Your task to perform on an android device: Open ESPN.com Image 0: 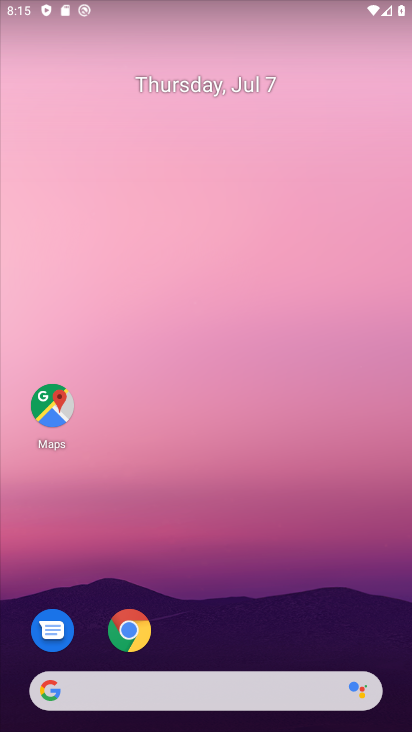
Step 0: click (130, 632)
Your task to perform on an android device: Open ESPN.com Image 1: 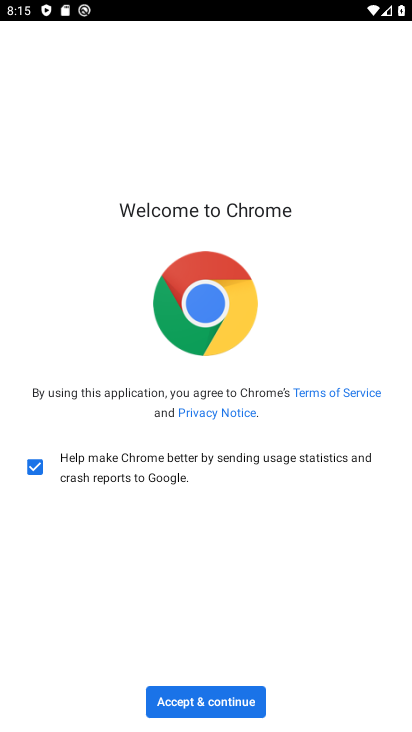
Step 1: click (218, 709)
Your task to perform on an android device: Open ESPN.com Image 2: 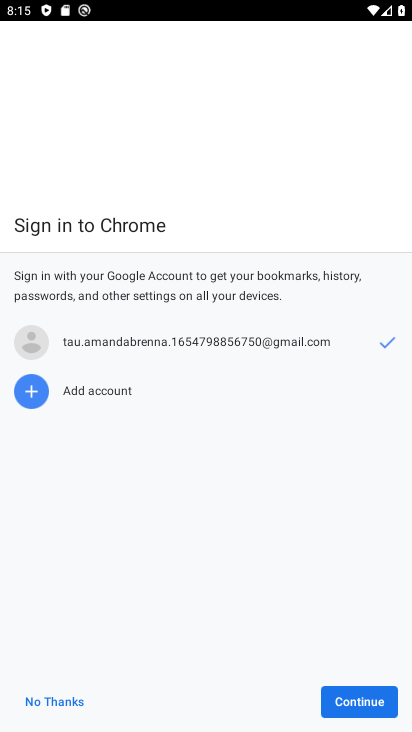
Step 2: click (354, 689)
Your task to perform on an android device: Open ESPN.com Image 3: 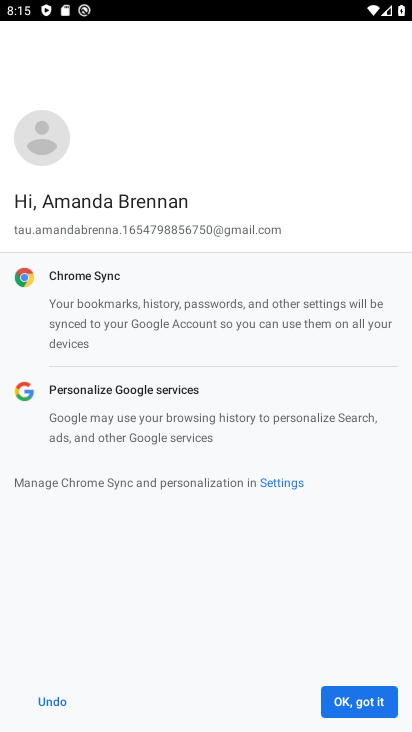
Step 3: click (352, 690)
Your task to perform on an android device: Open ESPN.com Image 4: 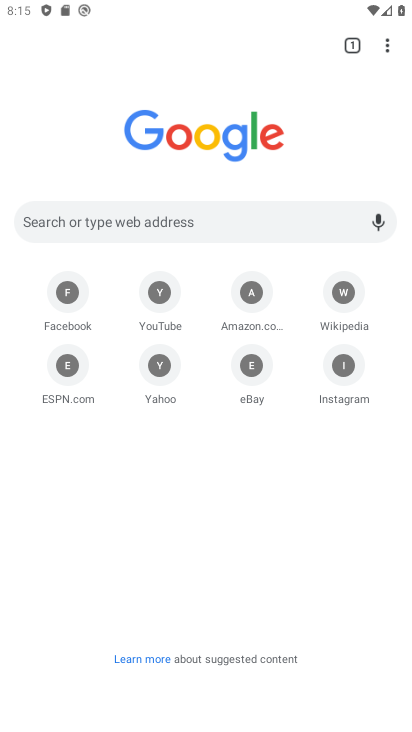
Step 4: click (180, 43)
Your task to perform on an android device: Open ESPN.com Image 5: 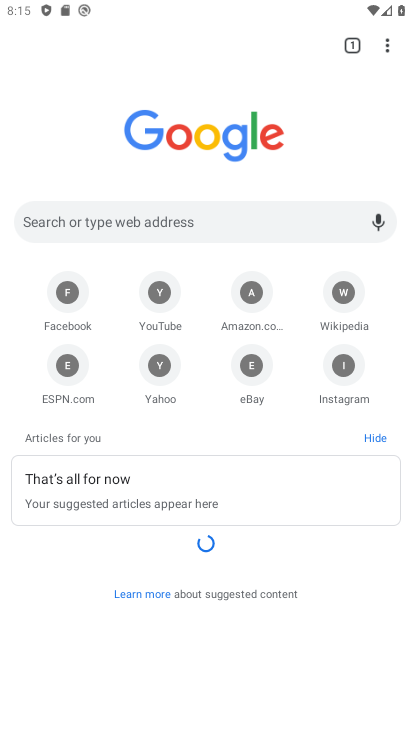
Step 5: click (57, 366)
Your task to perform on an android device: Open ESPN.com Image 6: 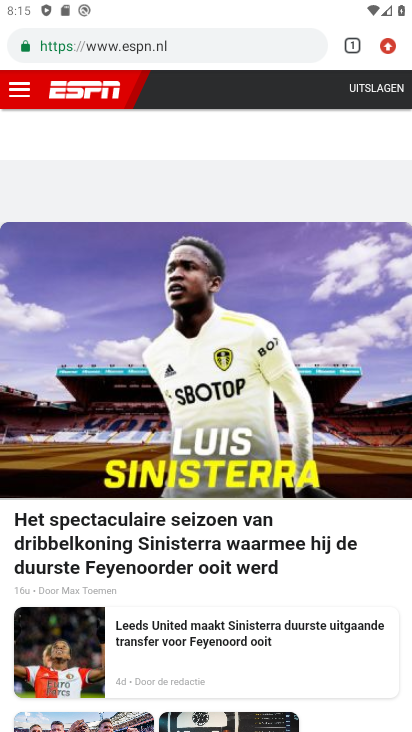
Step 6: task complete